Your task to perform on an android device: Search for Italian restaurants on Maps Image 0: 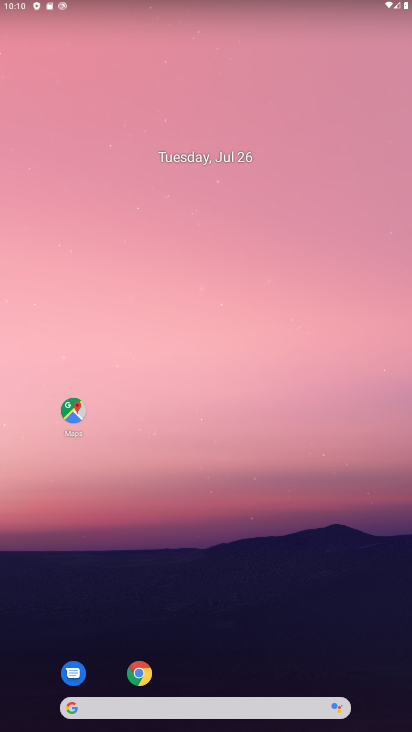
Step 0: drag from (311, 704) to (148, 43)
Your task to perform on an android device: Search for Italian restaurants on Maps Image 1: 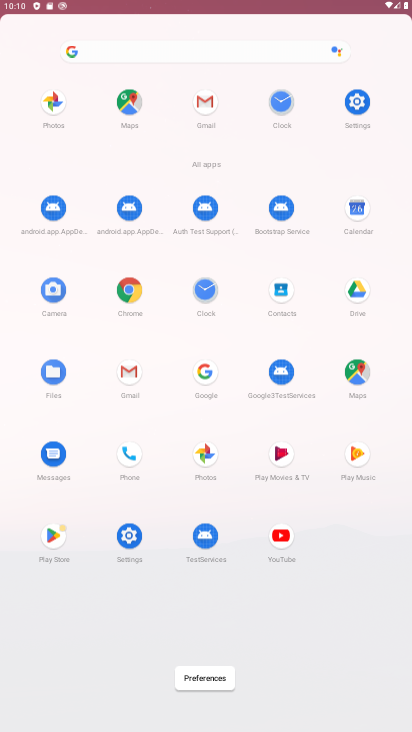
Step 1: drag from (176, 80) to (261, 53)
Your task to perform on an android device: Search for Italian restaurants on Maps Image 2: 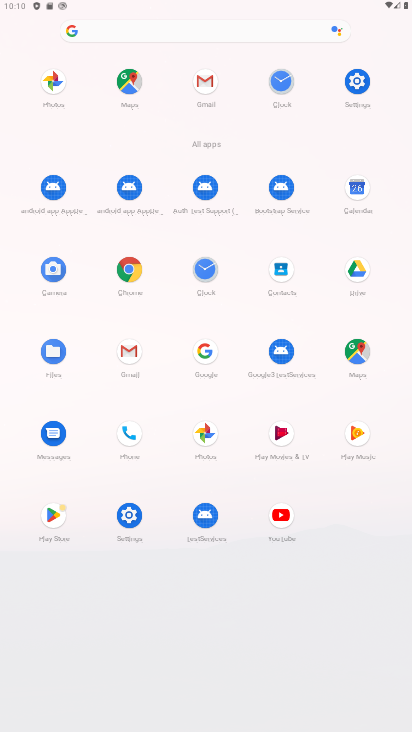
Step 2: click (357, 354)
Your task to perform on an android device: Search for Italian restaurants on Maps Image 3: 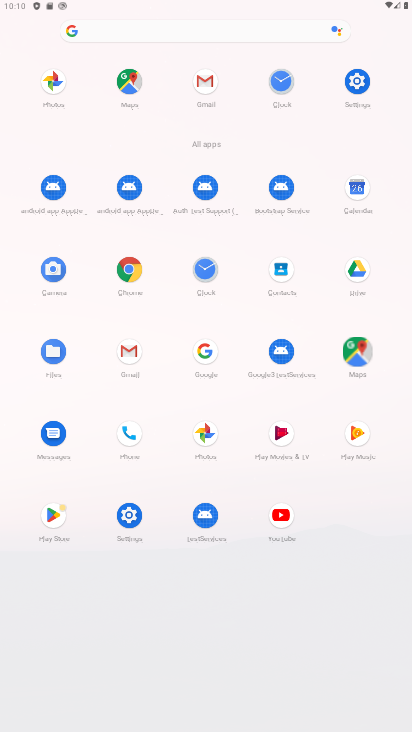
Step 3: click (358, 351)
Your task to perform on an android device: Search for Italian restaurants on Maps Image 4: 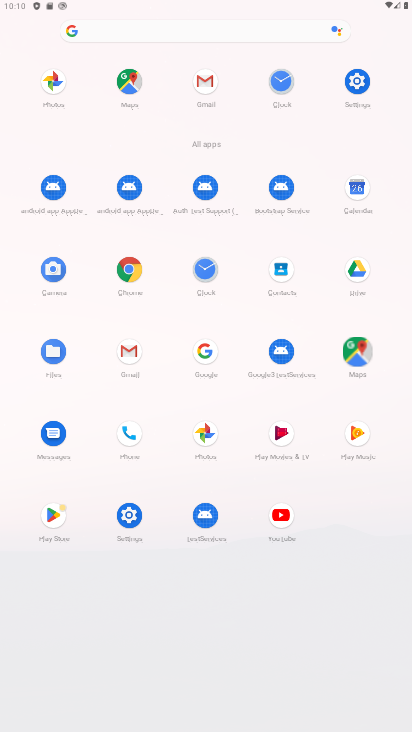
Step 4: click (358, 350)
Your task to perform on an android device: Search for Italian restaurants on Maps Image 5: 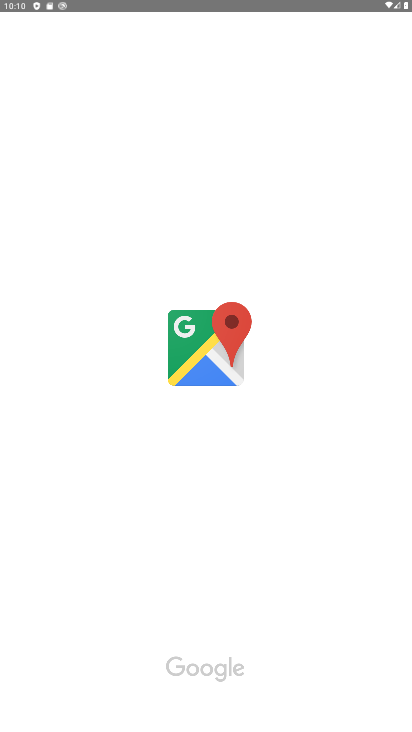
Step 5: click (358, 347)
Your task to perform on an android device: Search for Italian restaurants on Maps Image 6: 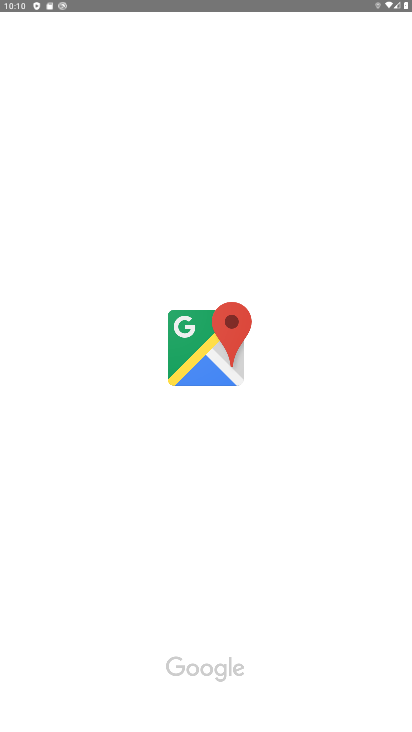
Step 6: click (210, 356)
Your task to perform on an android device: Search for Italian restaurants on Maps Image 7: 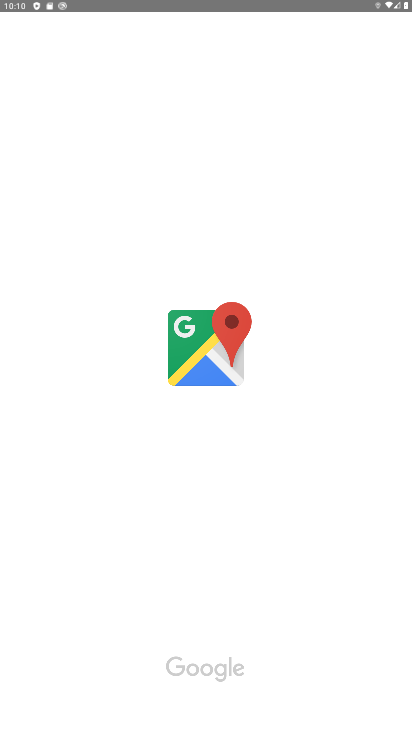
Step 7: click (210, 356)
Your task to perform on an android device: Search for Italian restaurants on Maps Image 8: 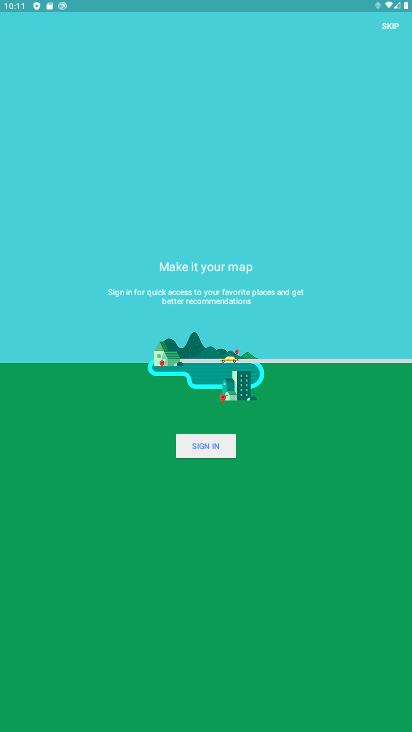
Step 8: click (388, 22)
Your task to perform on an android device: Search for Italian restaurants on Maps Image 9: 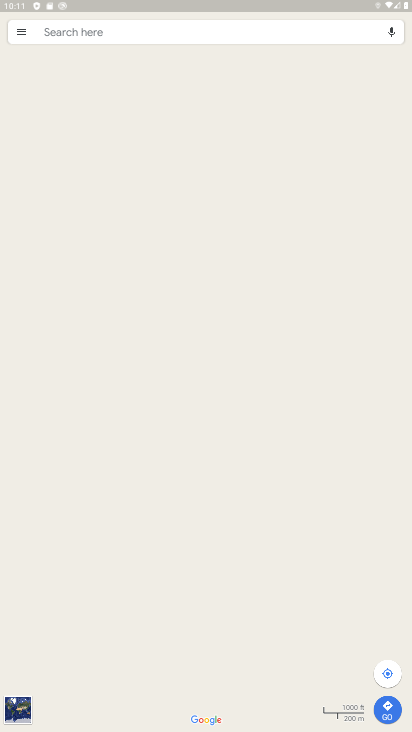
Step 9: click (387, 29)
Your task to perform on an android device: Search for Italian restaurants on Maps Image 10: 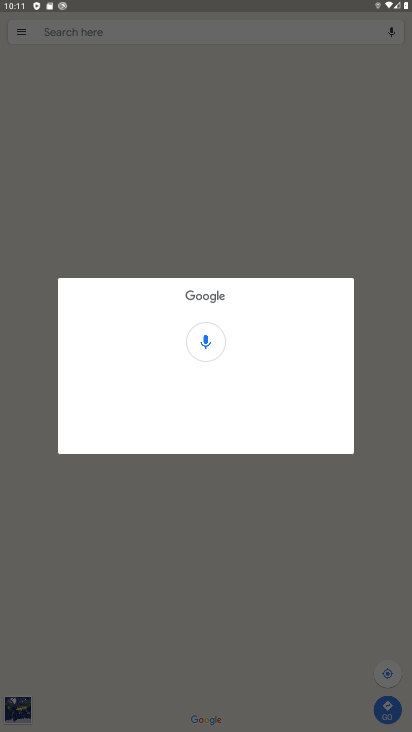
Step 10: click (63, 34)
Your task to perform on an android device: Search for Italian restaurants on Maps Image 11: 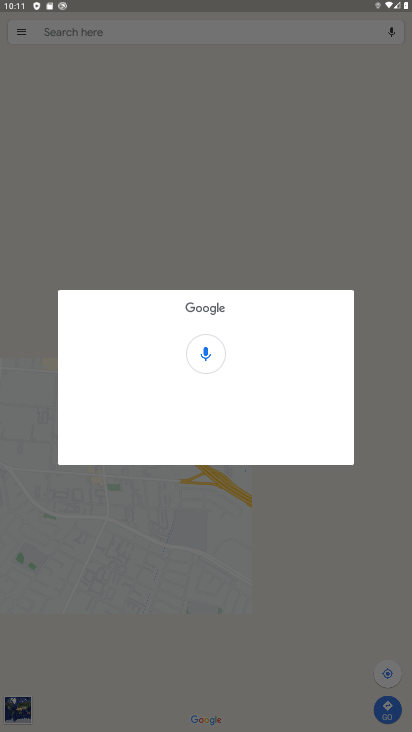
Step 11: click (188, 132)
Your task to perform on an android device: Search for Italian restaurants on Maps Image 12: 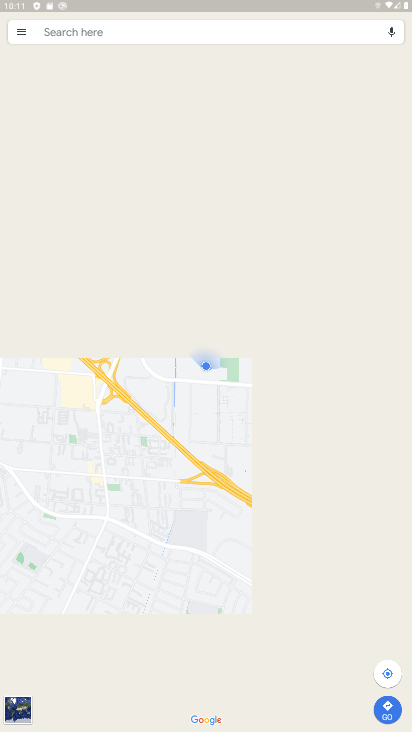
Step 12: click (187, 140)
Your task to perform on an android device: Search for Italian restaurants on Maps Image 13: 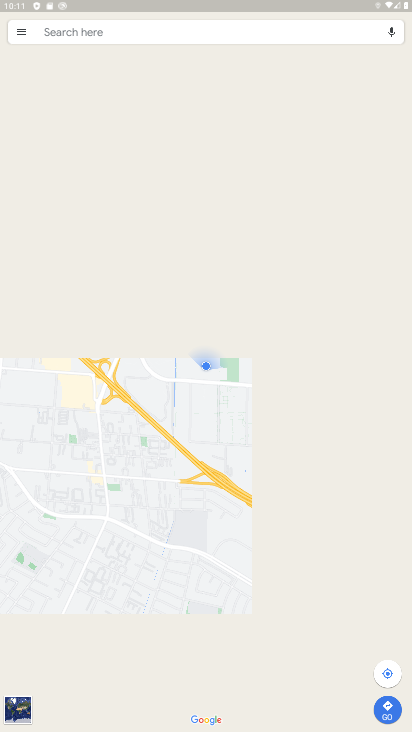
Step 13: click (69, 31)
Your task to perform on an android device: Search for Italian restaurants on Maps Image 14: 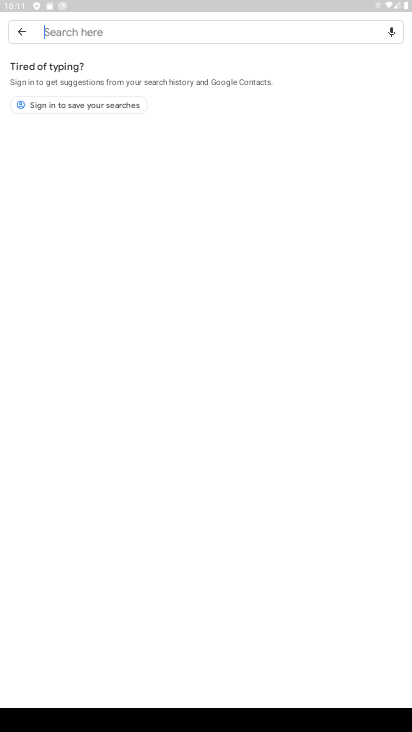
Step 14: type "italian restaurants"
Your task to perform on an android device: Search for Italian restaurants on Maps Image 15: 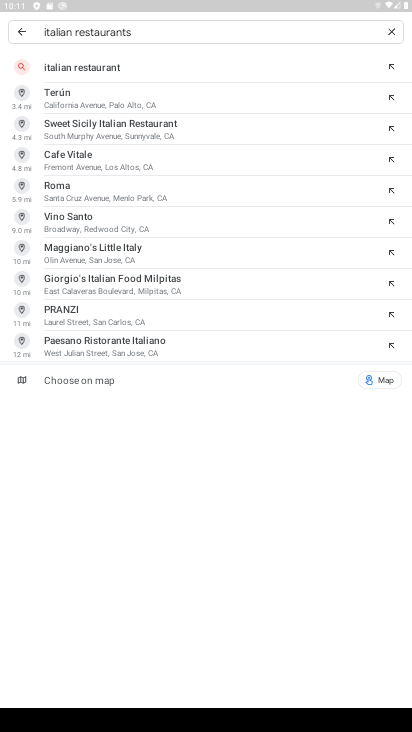
Step 15: click (93, 69)
Your task to perform on an android device: Search for Italian restaurants on Maps Image 16: 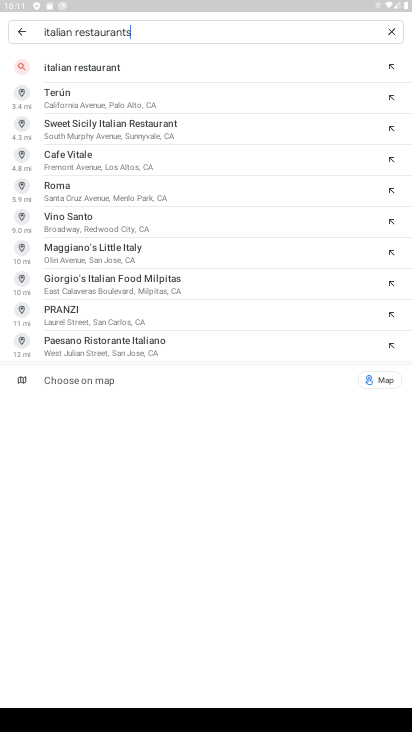
Step 16: click (96, 70)
Your task to perform on an android device: Search for Italian restaurants on Maps Image 17: 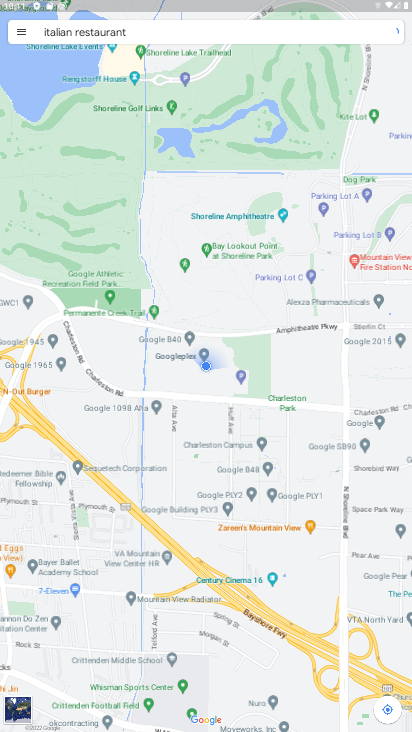
Step 17: task complete